Your task to perform on an android device: turn on showing notifications on the lock screen Image 0: 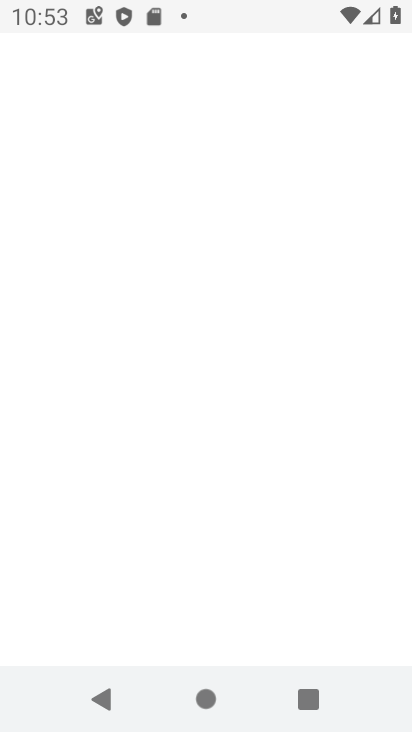
Step 0: drag from (181, 552) to (340, 91)
Your task to perform on an android device: turn on showing notifications on the lock screen Image 1: 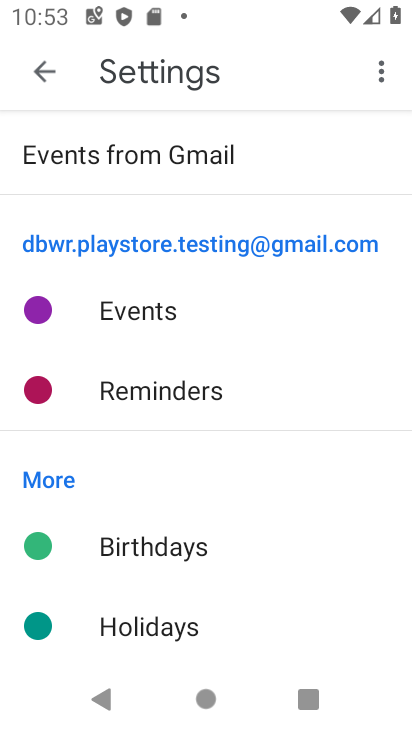
Step 1: press back button
Your task to perform on an android device: turn on showing notifications on the lock screen Image 2: 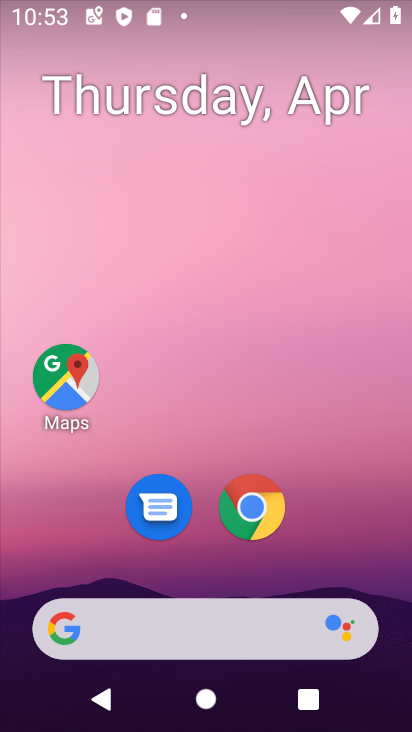
Step 2: drag from (95, 597) to (224, 44)
Your task to perform on an android device: turn on showing notifications on the lock screen Image 3: 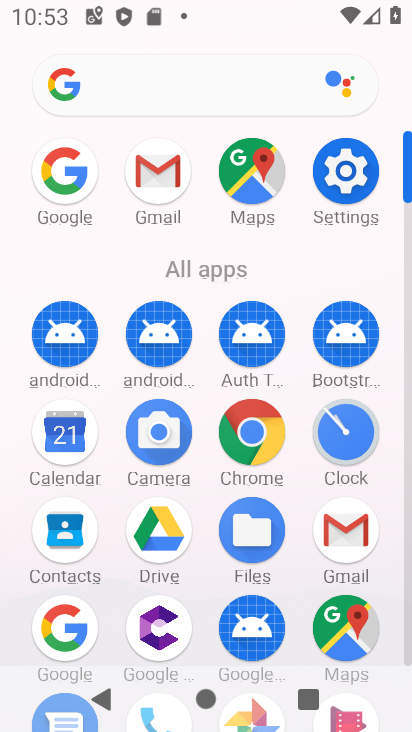
Step 3: click (343, 184)
Your task to perform on an android device: turn on showing notifications on the lock screen Image 4: 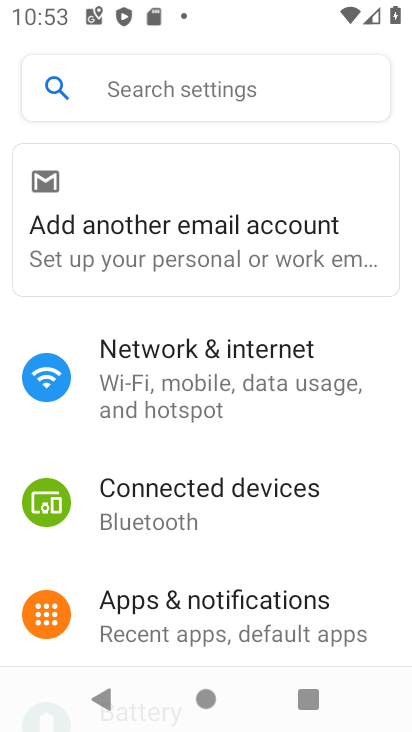
Step 4: drag from (114, 654) to (207, 275)
Your task to perform on an android device: turn on showing notifications on the lock screen Image 5: 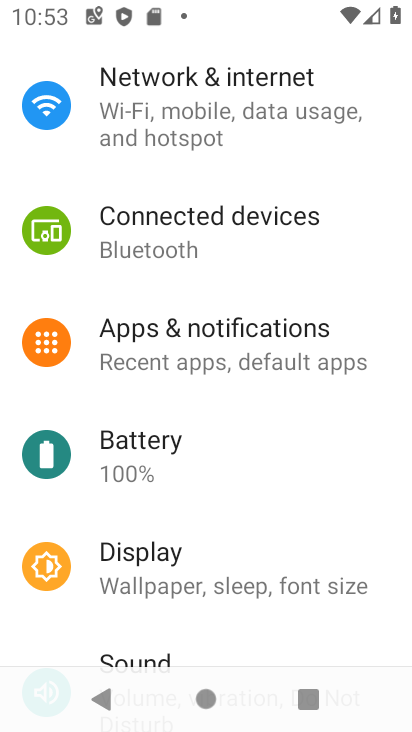
Step 5: click (241, 364)
Your task to perform on an android device: turn on showing notifications on the lock screen Image 6: 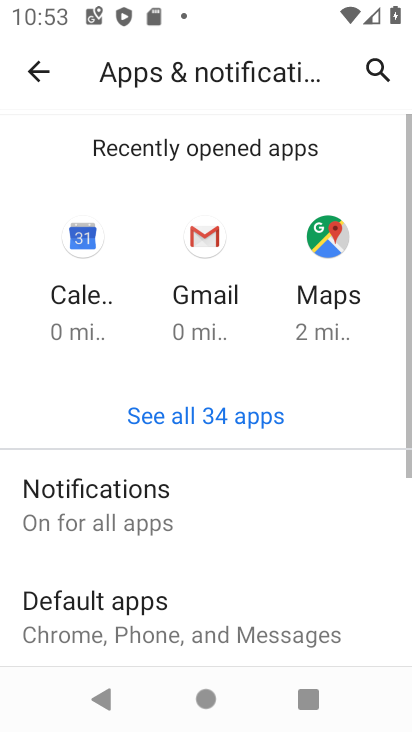
Step 6: drag from (229, 641) to (375, 220)
Your task to perform on an android device: turn on showing notifications on the lock screen Image 7: 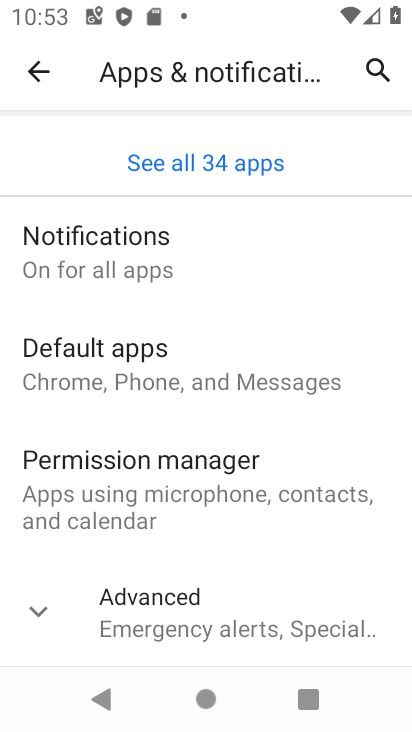
Step 7: click (164, 264)
Your task to perform on an android device: turn on showing notifications on the lock screen Image 8: 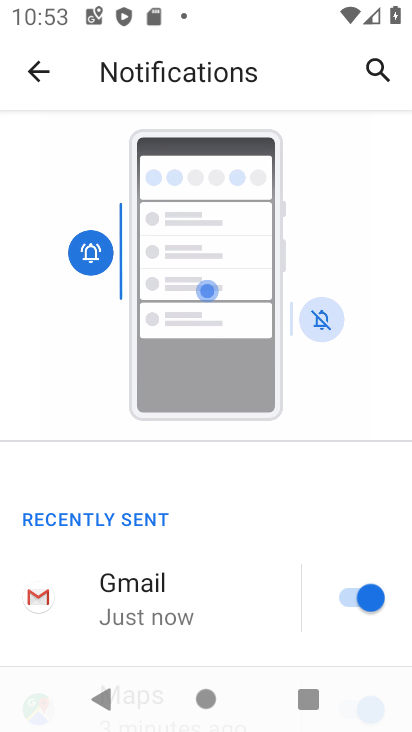
Step 8: drag from (109, 546) to (261, 122)
Your task to perform on an android device: turn on showing notifications on the lock screen Image 9: 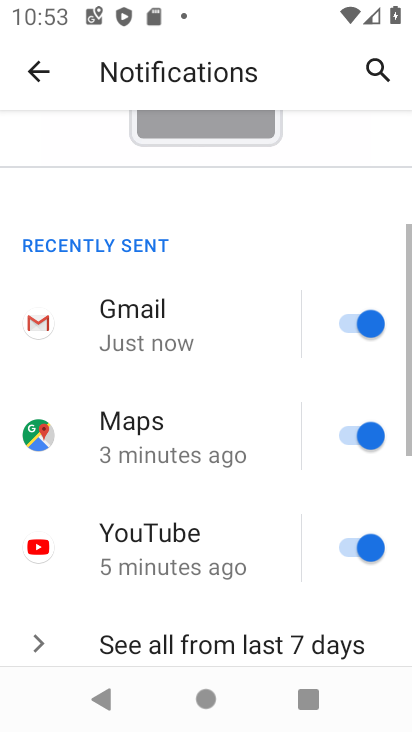
Step 9: drag from (118, 597) to (238, 149)
Your task to perform on an android device: turn on showing notifications on the lock screen Image 10: 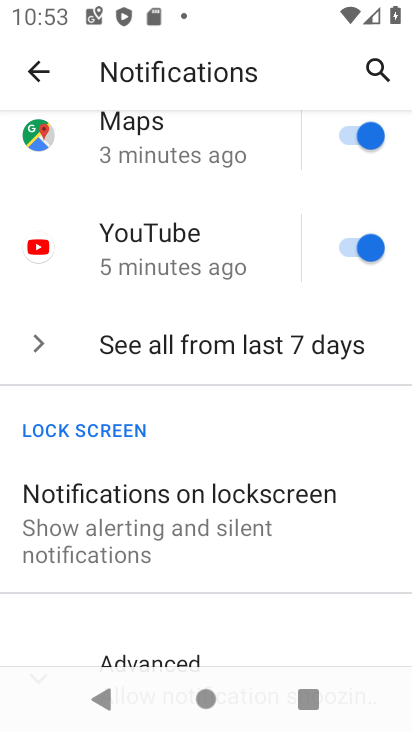
Step 10: click (212, 523)
Your task to perform on an android device: turn on showing notifications on the lock screen Image 11: 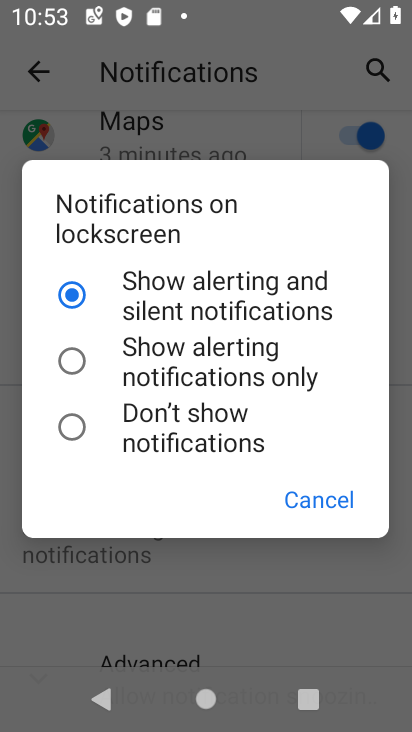
Step 11: task complete